Your task to perform on an android device: check out phone information Image 0: 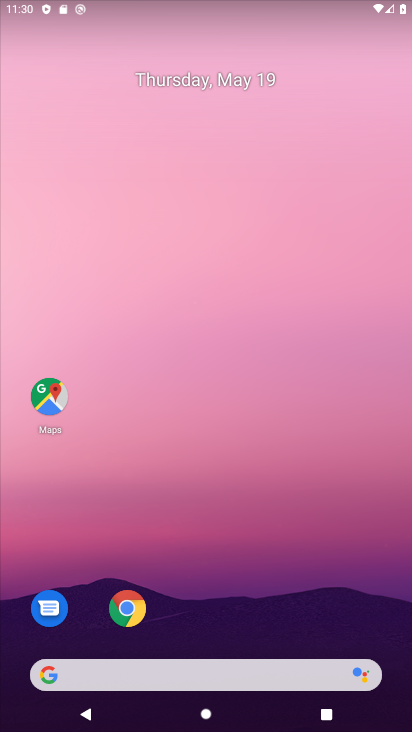
Step 0: drag from (379, 613) to (350, 183)
Your task to perform on an android device: check out phone information Image 1: 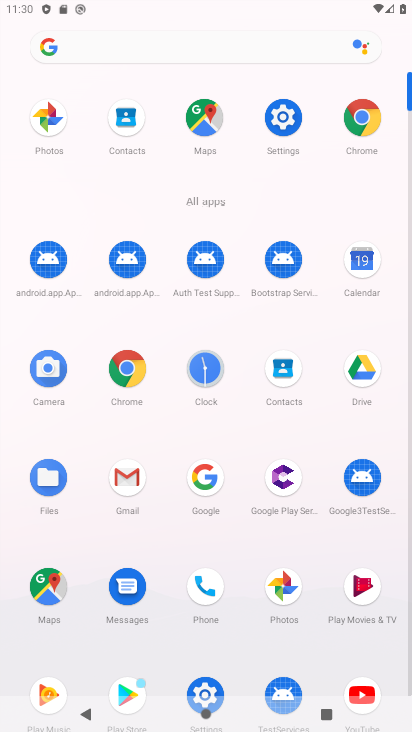
Step 1: click (210, 594)
Your task to perform on an android device: check out phone information Image 2: 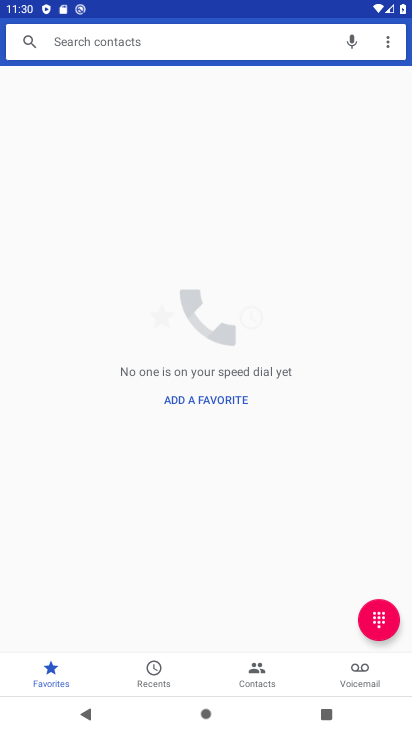
Step 2: click (158, 678)
Your task to perform on an android device: check out phone information Image 3: 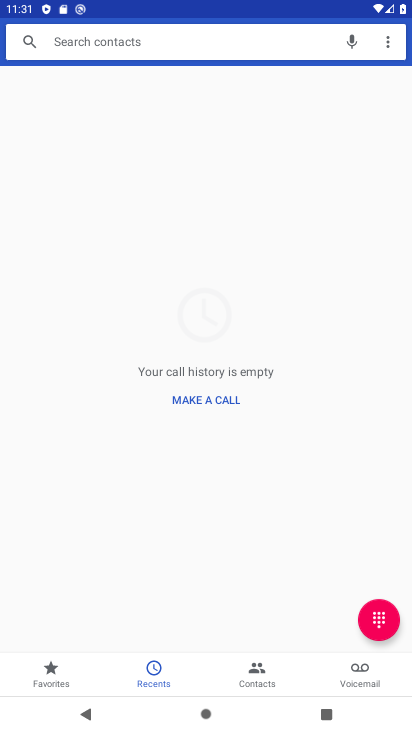
Step 3: task complete